Your task to perform on an android device: Open CNN.com Image 0: 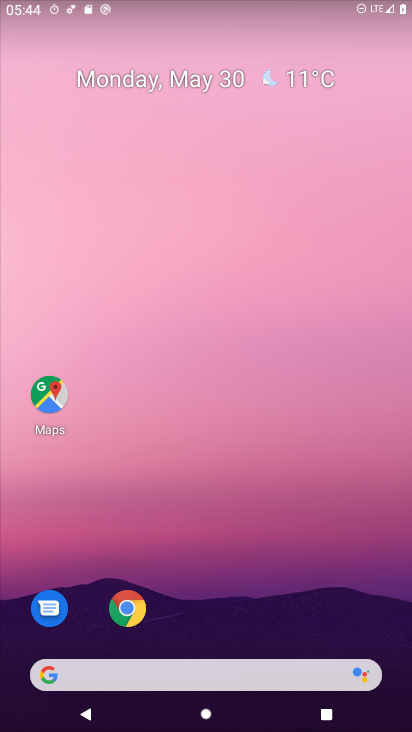
Step 0: click (142, 614)
Your task to perform on an android device: Open CNN.com Image 1: 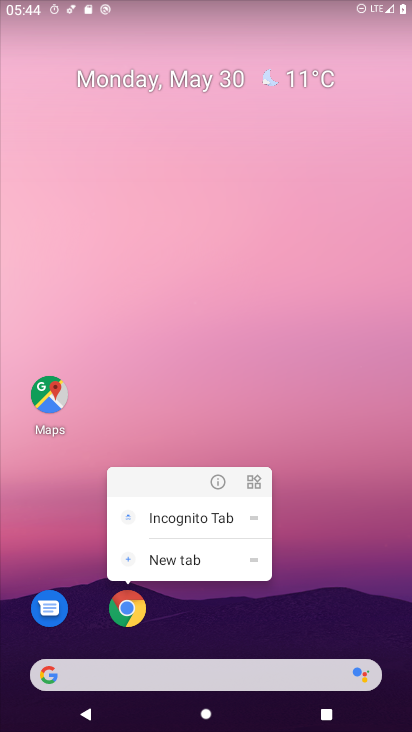
Step 1: click (142, 609)
Your task to perform on an android device: Open CNN.com Image 2: 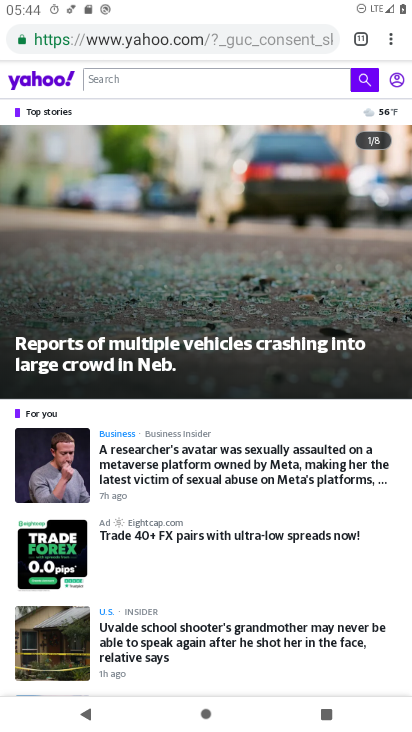
Step 2: click (351, 32)
Your task to perform on an android device: Open CNN.com Image 3: 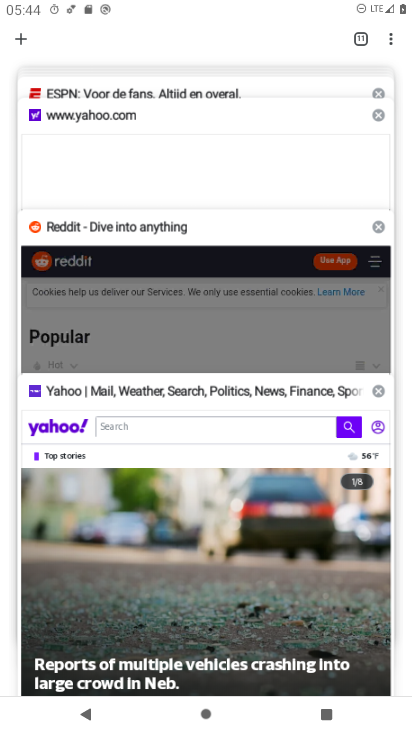
Step 3: click (23, 37)
Your task to perform on an android device: Open CNN.com Image 4: 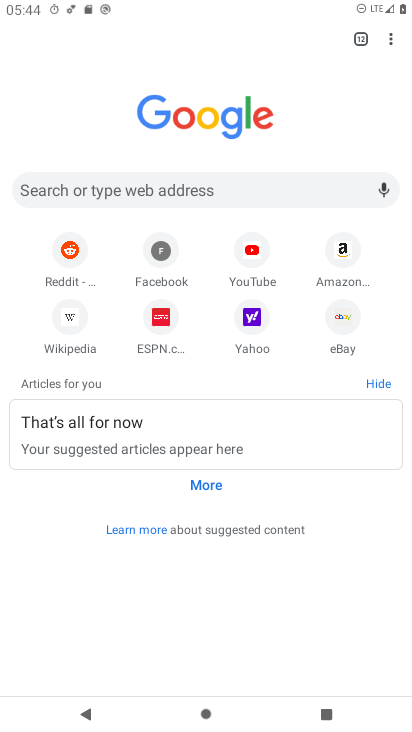
Step 4: click (182, 173)
Your task to perform on an android device: Open CNN.com Image 5: 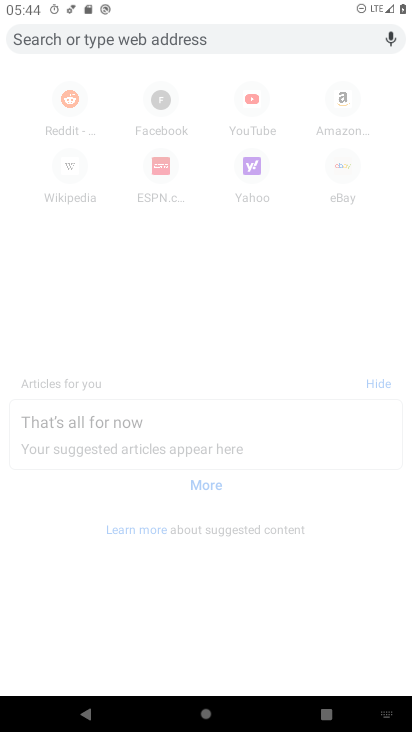
Step 5: type "CNN.com"
Your task to perform on an android device: Open CNN.com Image 6: 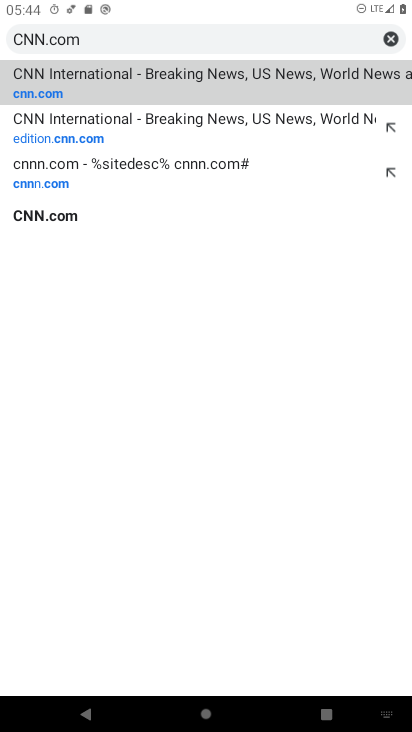
Step 6: click (141, 82)
Your task to perform on an android device: Open CNN.com Image 7: 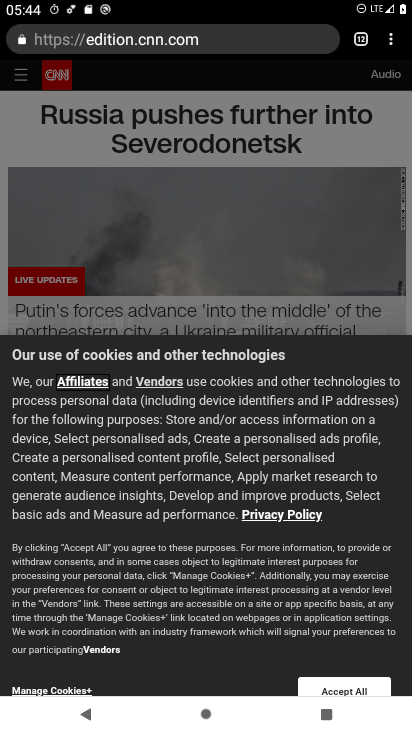
Step 7: task complete